Your task to perform on an android device: change notification settings in the gmail app Image 0: 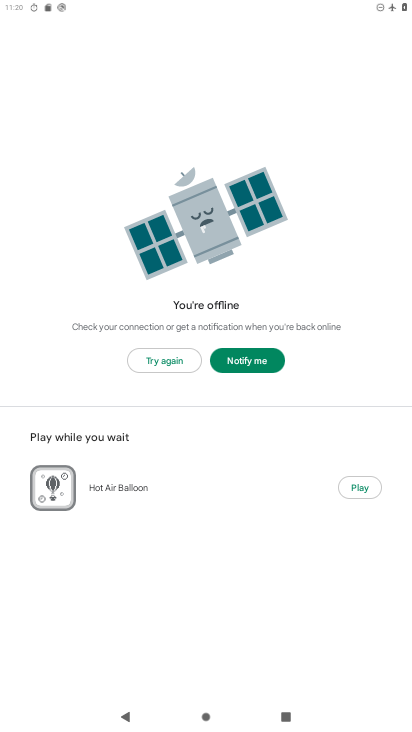
Step 0: press home button
Your task to perform on an android device: change notification settings in the gmail app Image 1: 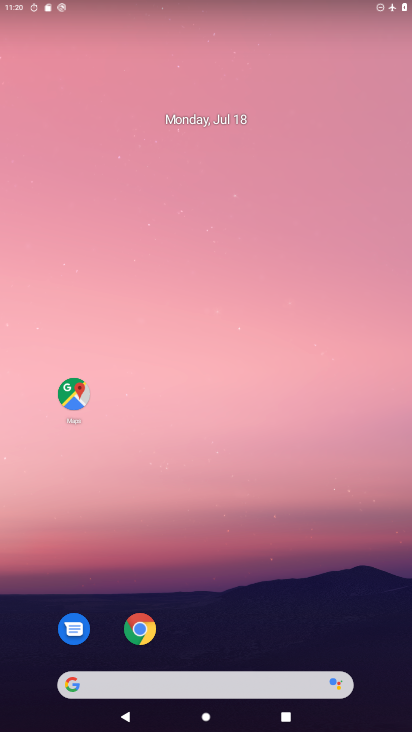
Step 1: drag from (297, 624) to (163, 21)
Your task to perform on an android device: change notification settings in the gmail app Image 2: 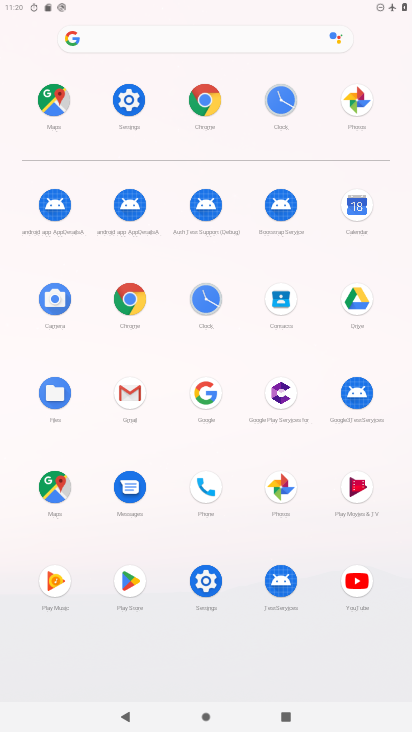
Step 2: click (126, 402)
Your task to perform on an android device: change notification settings in the gmail app Image 3: 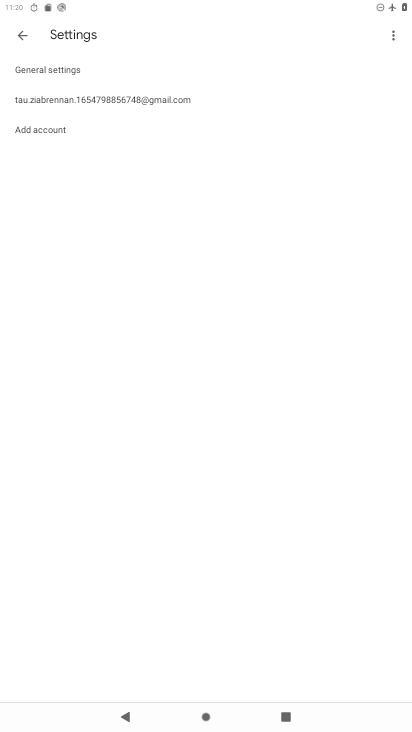
Step 3: click (96, 108)
Your task to perform on an android device: change notification settings in the gmail app Image 4: 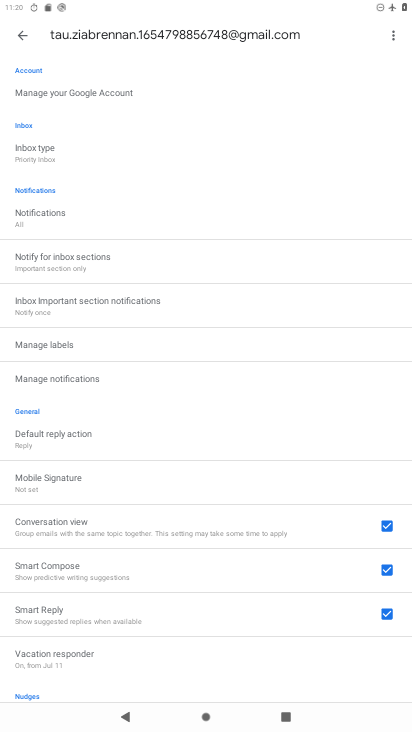
Step 4: click (88, 381)
Your task to perform on an android device: change notification settings in the gmail app Image 5: 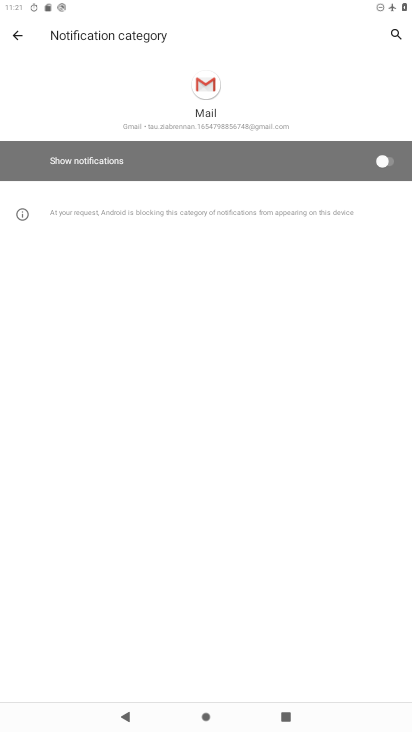
Step 5: click (395, 165)
Your task to perform on an android device: change notification settings in the gmail app Image 6: 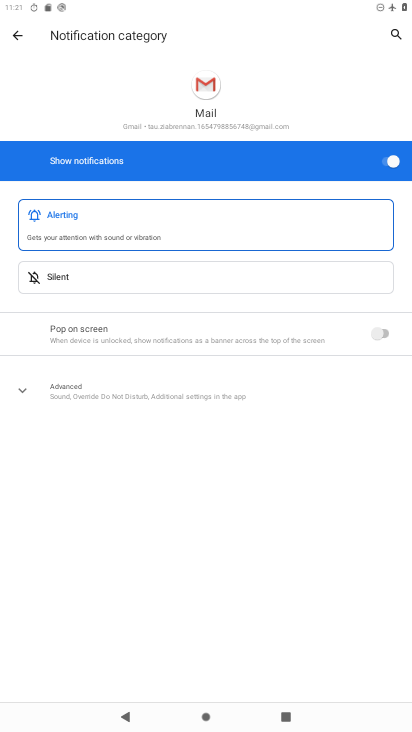
Step 6: task complete